Your task to perform on an android device: Open Google Maps Image 0: 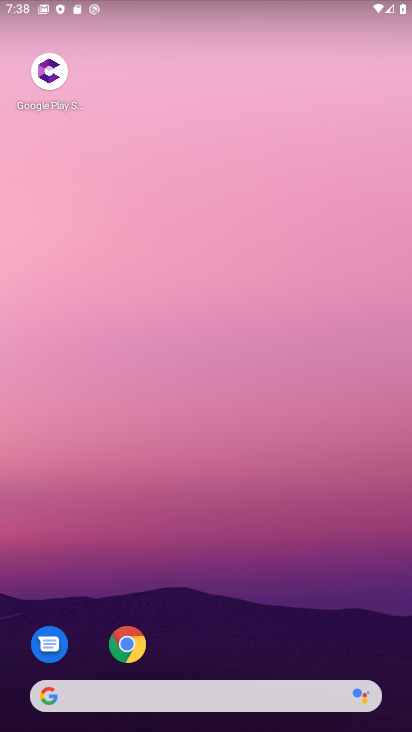
Step 0: drag from (323, 627) to (288, 251)
Your task to perform on an android device: Open Google Maps Image 1: 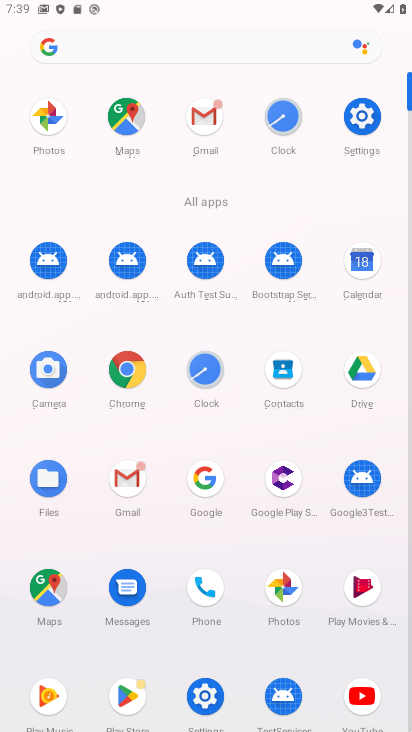
Step 1: click (43, 603)
Your task to perform on an android device: Open Google Maps Image 2: 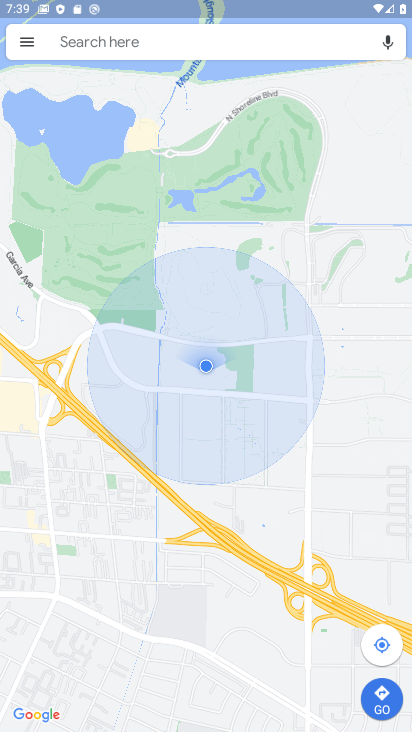
Step 2: task complete